Your task to perform on an android device: Open accessibility settings Image 0: 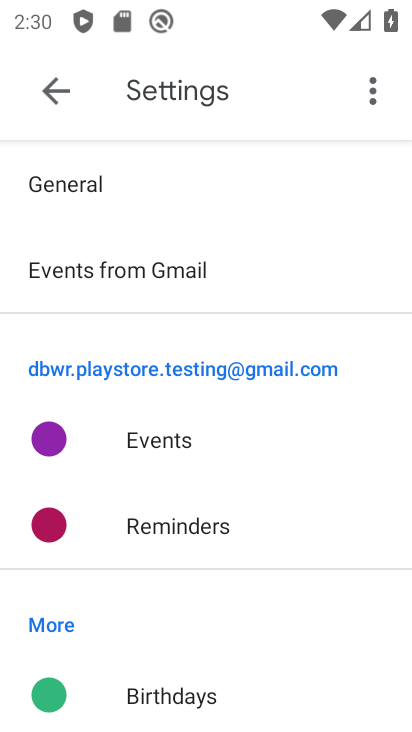
Step 0: press home button
Your task to perform on an android device: Open accessibility settings Image 1: 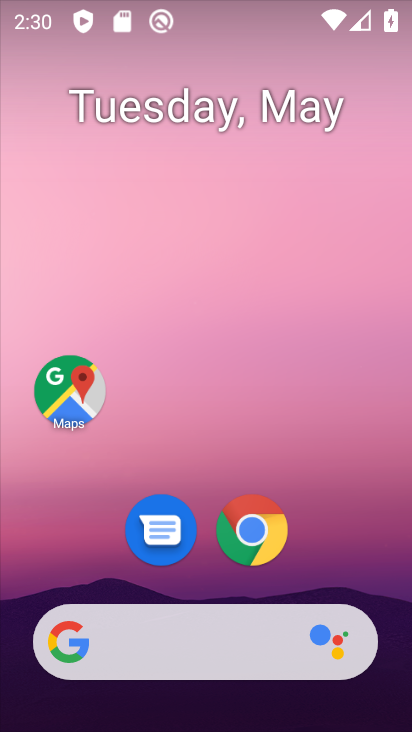
Step 1: drag from (96, 405) to (231, 165)
Your task to perform on an android device: Open accessibility settings Image 2: 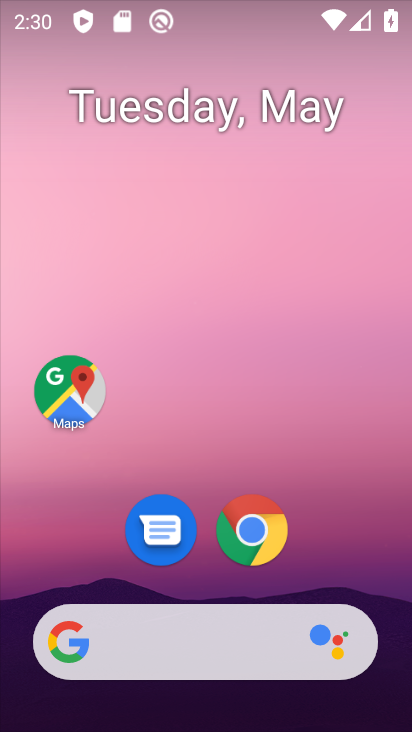
Step 2: drag from (22, 591) to (258, 27)
Your task to perform on an android device: Open accessibility settings Image 3: 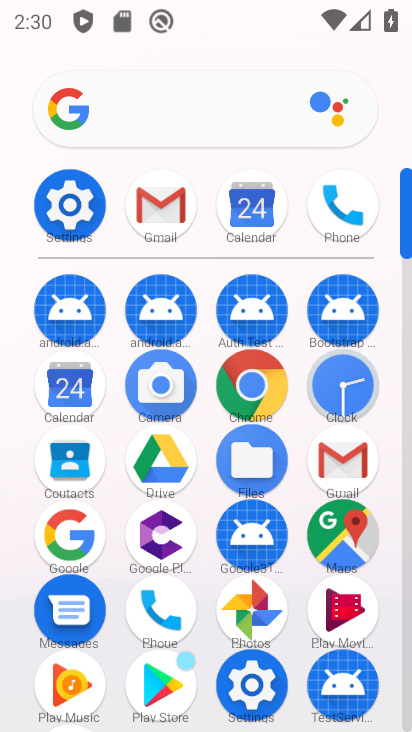
Step 3: click (62, 202)
Your task to perform on an android device: Open accessibility settings Image 4: 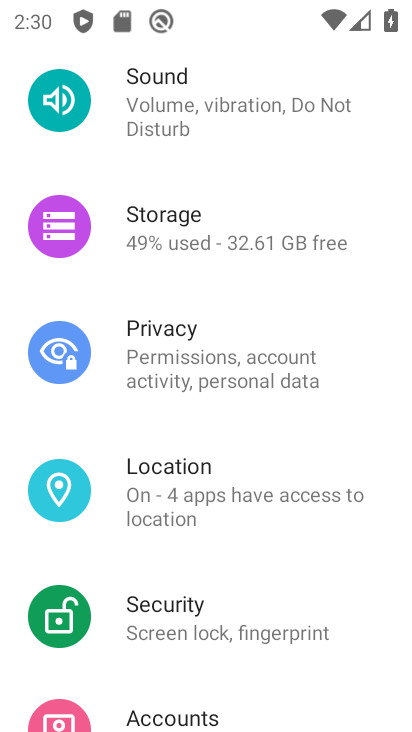
Step 4: drag from (5, 604) to (242, 154)
Your task to perform on an android device: Open accessibility settings Image 5: 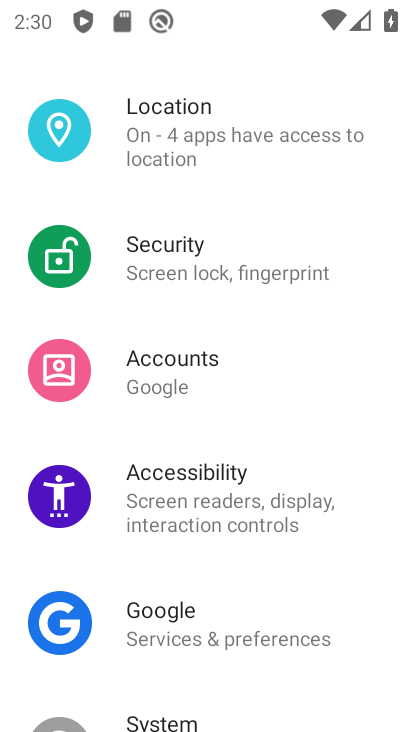
Step 5: click (166, 494)
Your task to perform on an android device: Open accessibility settings Image 6: 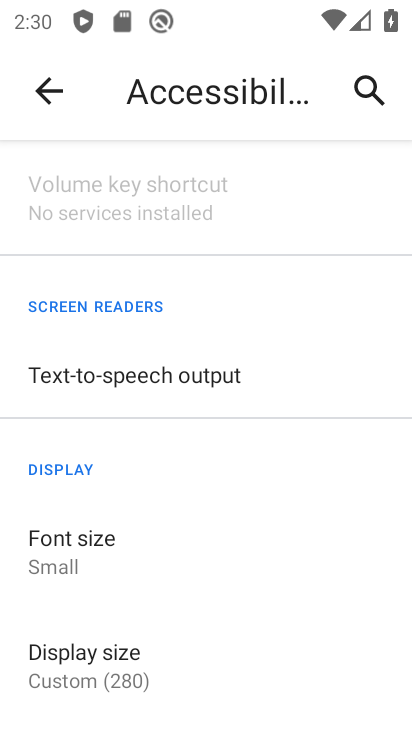
Step 6: task complete